Your task to perform on an android device: turn off sleep mode Image 0: 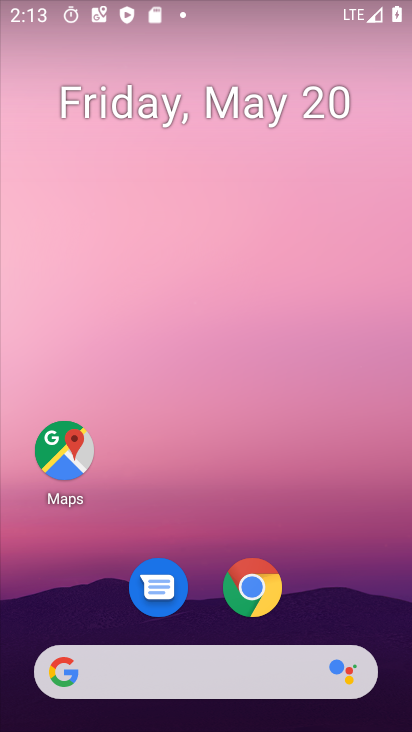
Step 0: drag from (328, 507) to (338, 175)
Your task to perform on an android device: turn off sleep mode Image 1: 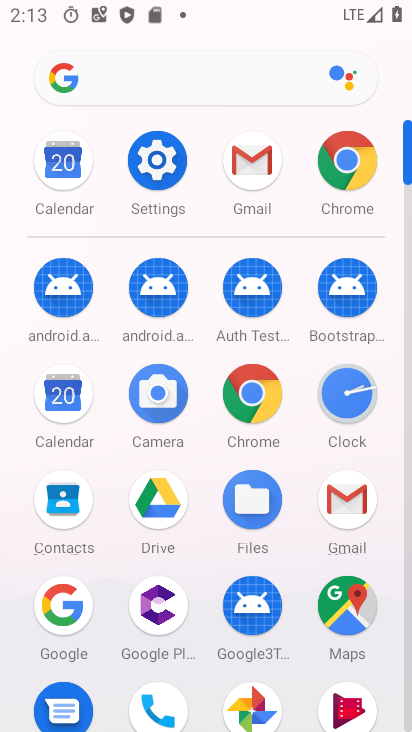
Step 1: click (151, 153)
Your task to perform on an android device: turn off sleep mode Image 2: 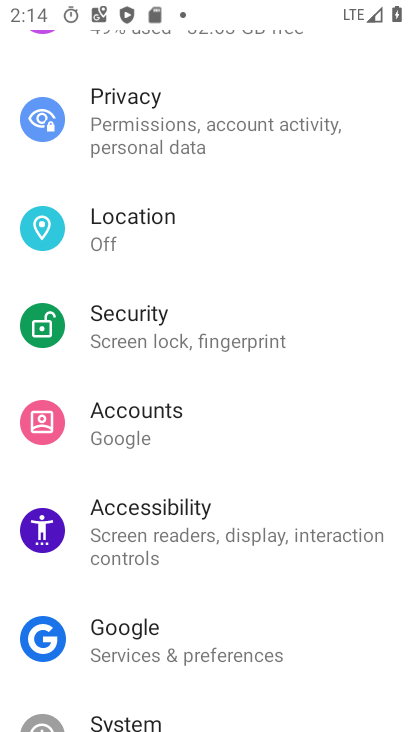
Step 2: drag from (230, 182) to (224, 547)
Your task to perform on an android device: turn off sleep mode Image 3: 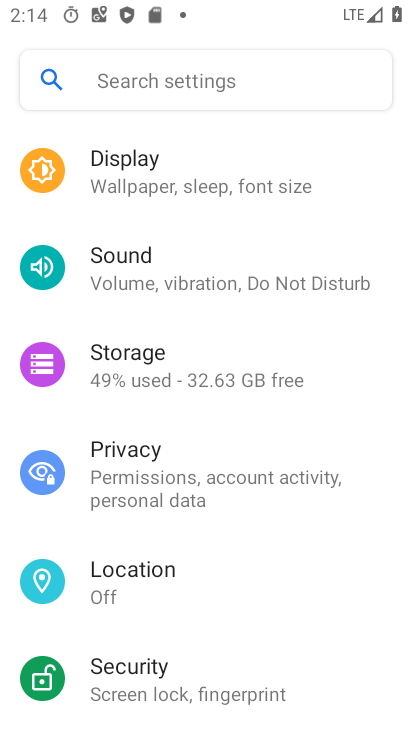
Step 3: click (205, 187)
Your task to perform on an android device: turn off sleep mode Image 4: 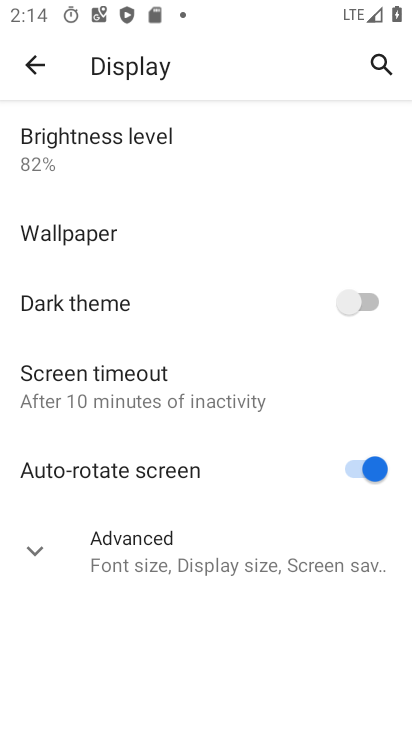
Step 4: click (163, 558)
Your task to perform on an android device: turn off sleep mode Image 5: 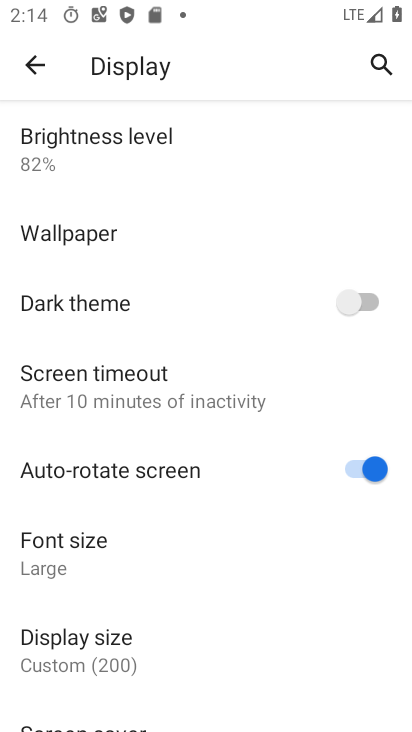
Step 5: drag from (239, 603) to (216, 654)
Your task to perform on an android device: turn off sleep mode Image 6: 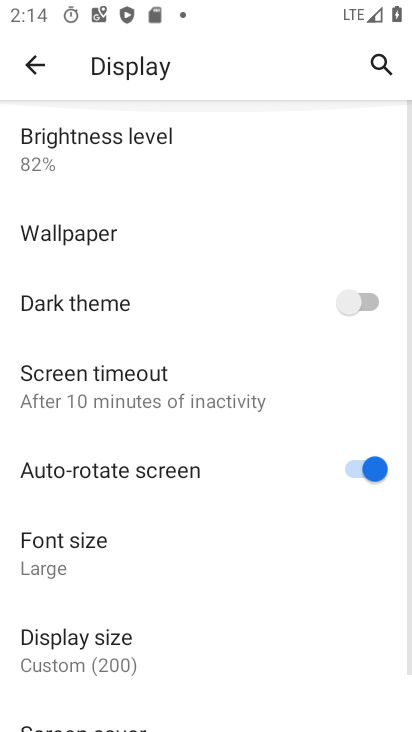
Step 6: click (177, 395)
Your task to perform on an android device: turn off sleep mode Image 7: 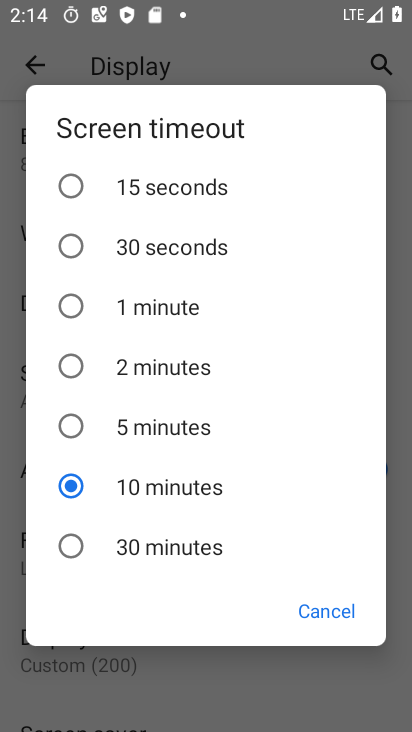
Step 7: task complete